Your task to perform on an android device: Open Google Image 0: 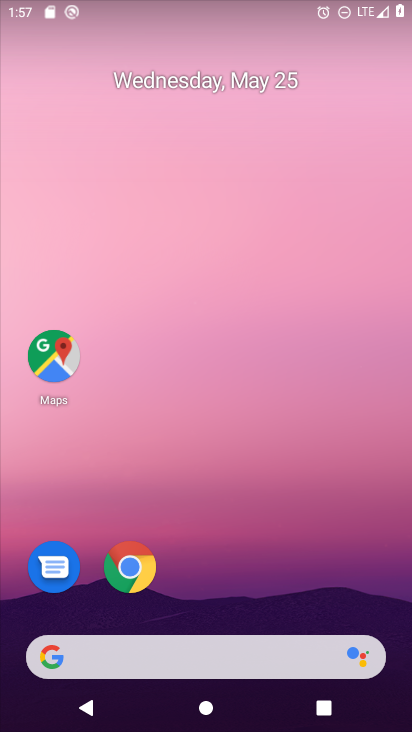
Step 0: drag from (402, 671) to (305, 212)
Your task to perform on an android device: Open Google Image 1: 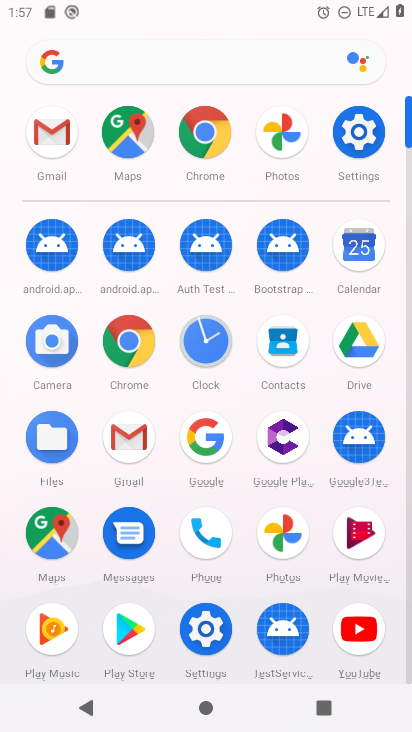
Step 1: click (204, 436)
Your task to perform on an android device: Open Google Image 2: 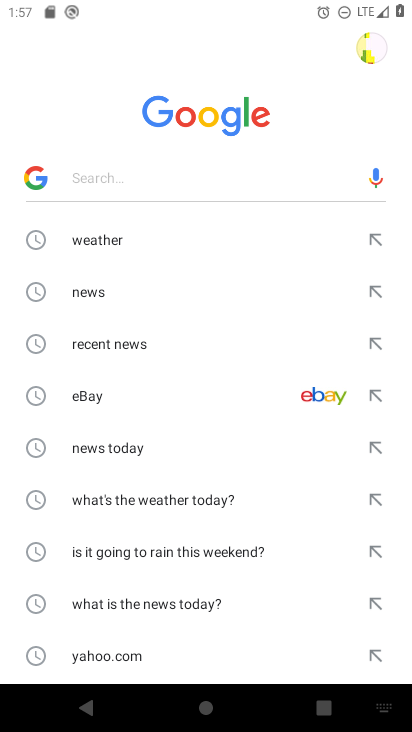
Step 2: task complete